Your task to perform on an android device: open the mobile data screen to see how much data has been used Image 0: 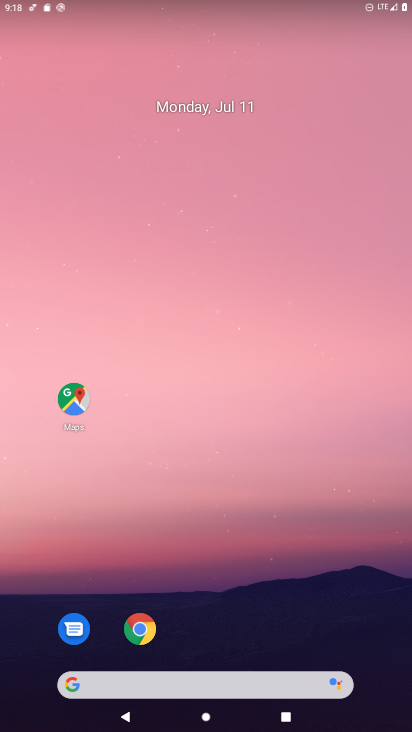
Step 0: drag from (207, 9) to (200, 527)
Your task to perform on an android device: open the mobile data screen to see how much data has been used Image 1: 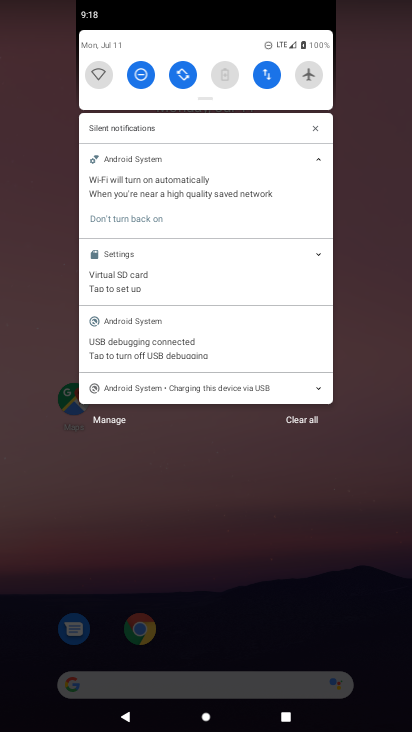
Step 1: click (268, 400)
Your task to perform on an android device: open the mobile data screen to see how much data has been used Image 2: 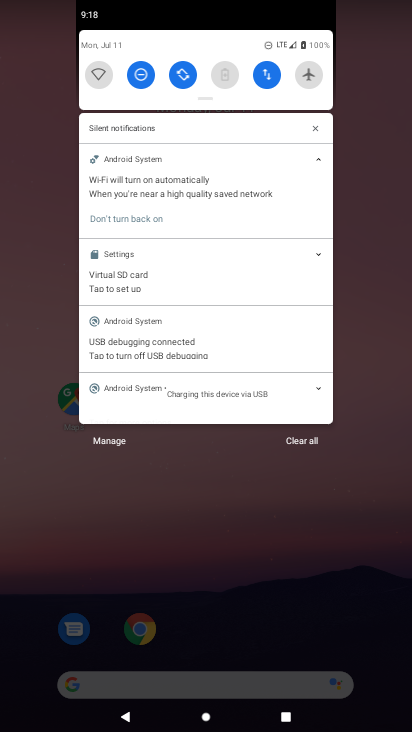
Step 2: click (300, 484)
Your task to perform on an android device: open the mobile data screen to see how much data has been used Image 3: 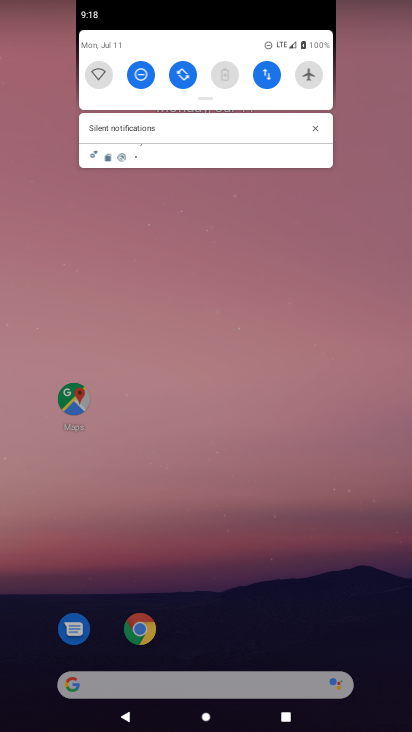
Step 3: click (264, 81)
Your task to perform on an android device: open the mobile data screen to see how much data has been used Image 4: 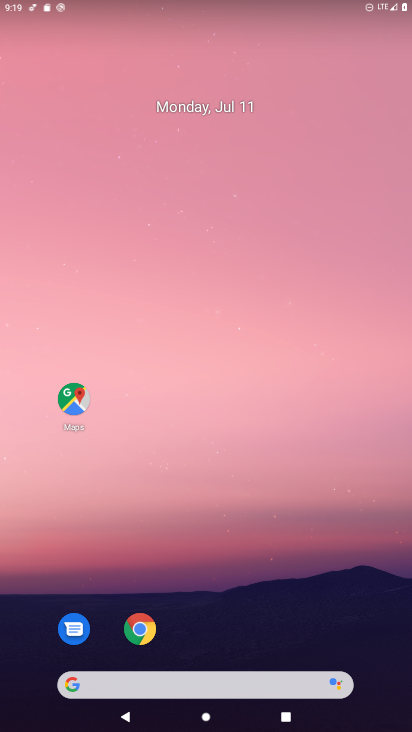
Step 4: drag from (202, 110) to (236, 490)
Your task to perform on an android device: open the mobile data screen to see how much data has been used Image 5: 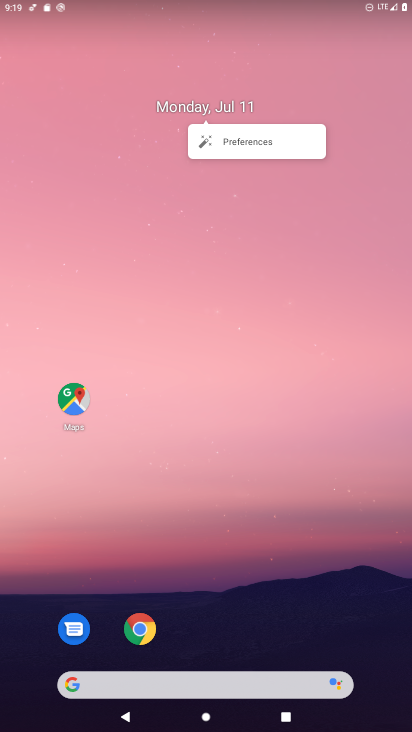
Step 5: drag from (167, 7) to (270, 587)
Your task to perform on an android device: open the mobile data screen to see how much data has been used Image 6: 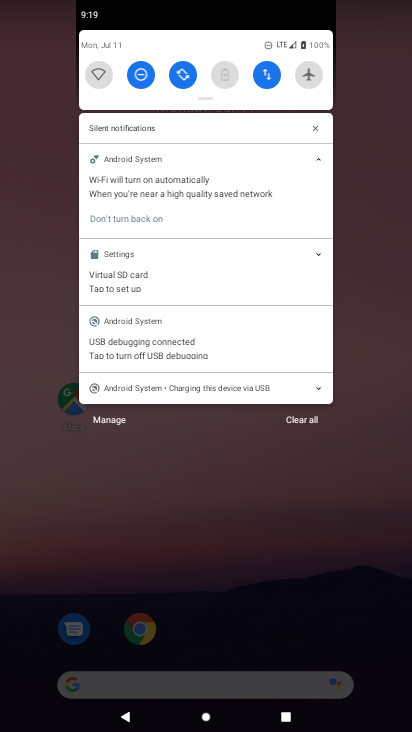
Step 6: click (263, 65)
Your task to perform on an android device: open the mobile data screen to see how much data has been used Image 7: 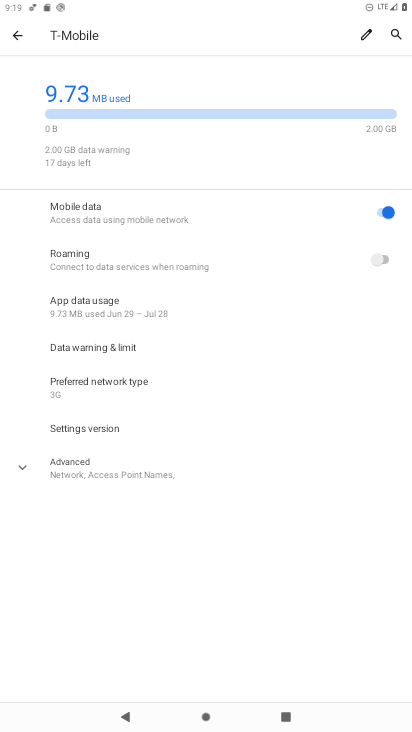
Step 7: task complete